Your task to perform on an android device: change notification settings in the gmail app Image 0: 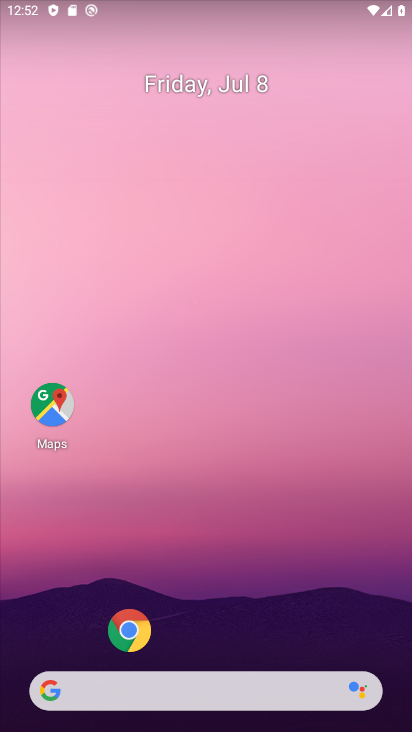
Step 0: drag from (279, 679) to (185, 37)
Your task to perform on an android device: change notification settings in the gmail app Image 1: 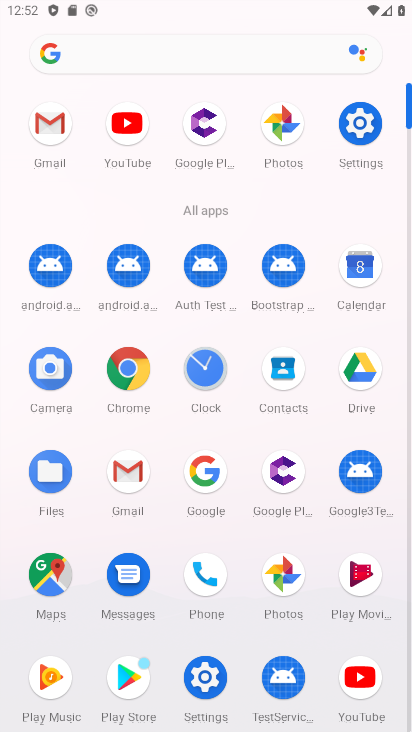
Step 1: click (145, 469)
Your task to perform on an android device: change notification settings in the gmail app Image 2: 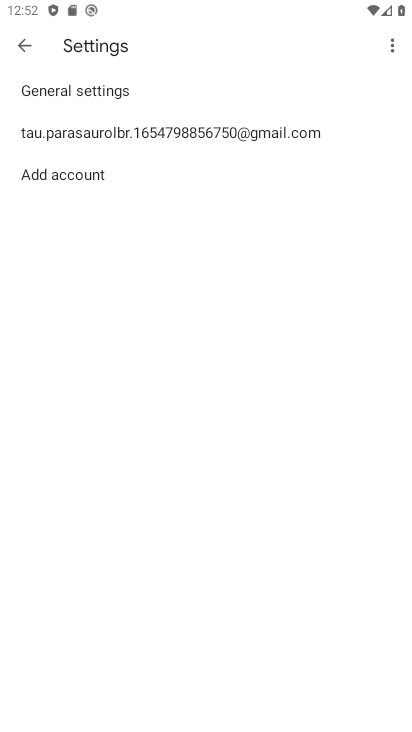
Step 2: click (101, 135)
Your task to perform on an android device: change notification settings in the gmail app Image 3: 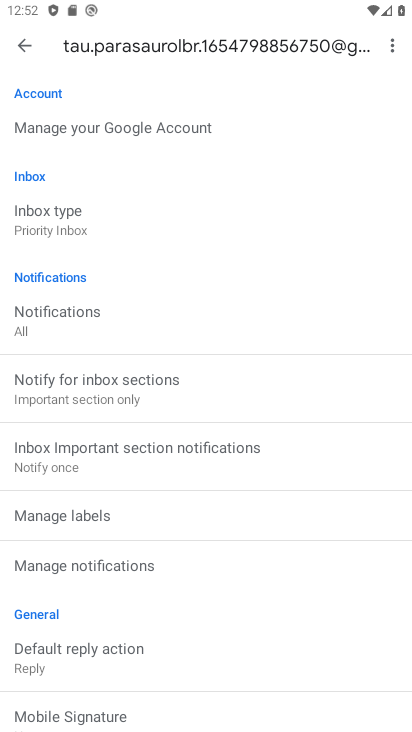
Step 3: click (103, 565)
Your task to perform on an android device: change notification settings in the gmail app Image 4: 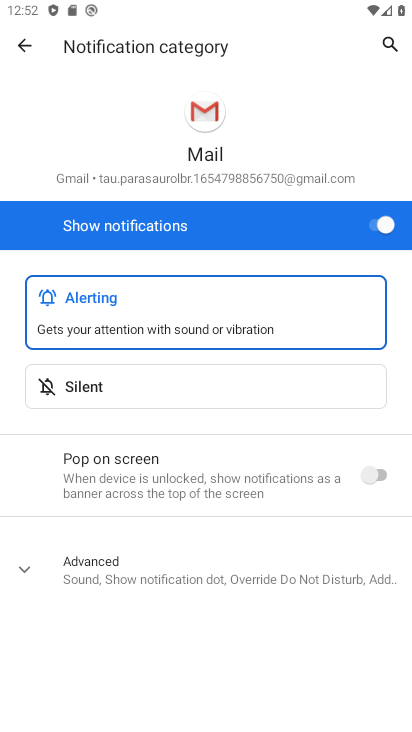
Step 4: press home button
Your task to perform on an android device: change notification settings in the gmail app Image 5: 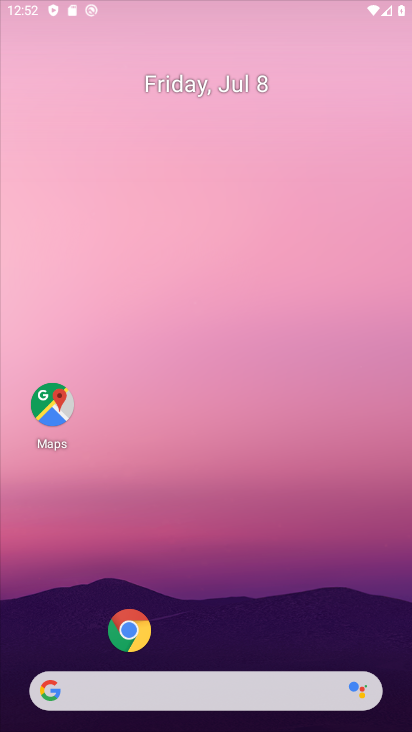
Step 5: drag from (277, 678) to (242, 107)
Your task to perform on an android device: change notification settings in the gmail app Image 6: 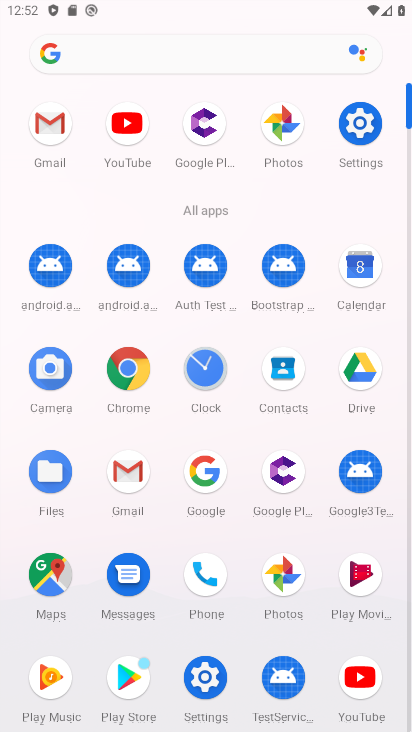
Step 6: click (138, 471)
Your task to perform on an android device: change notification settings in the gmail app Image 7: 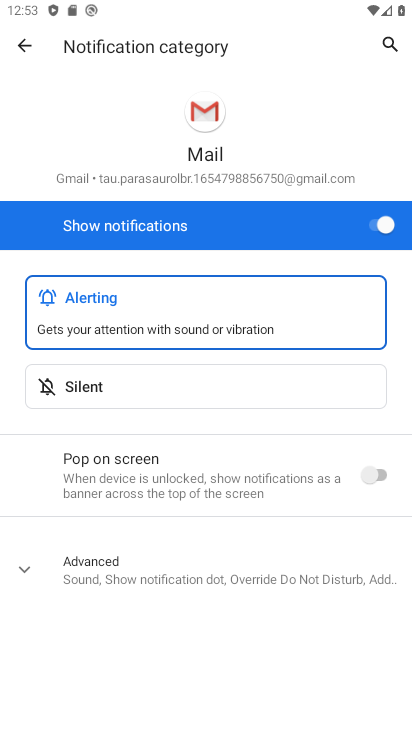
Step 7: click (393, 215)
Your task to perform on an android device: change notification settings in the gmail app Image 8: 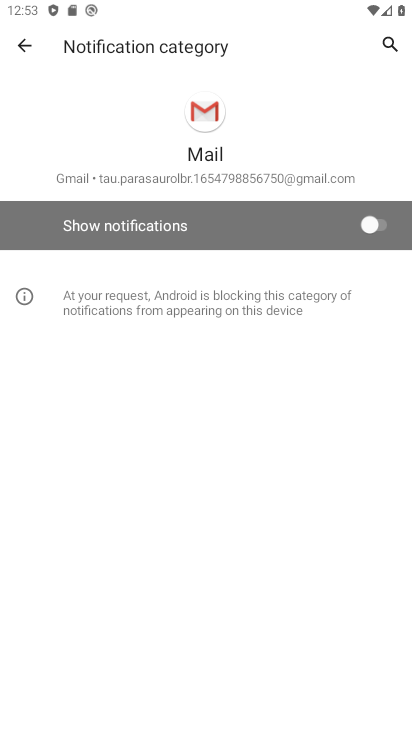
Step 8: task complete